Your task to perform on an android device: turn off notifications in google photos Image 0: 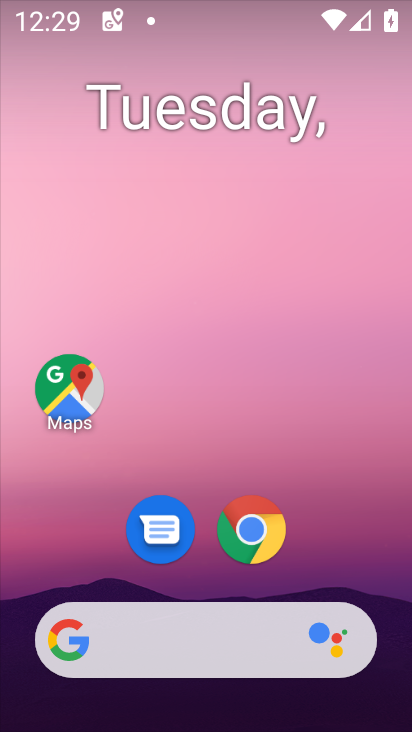
Step 0: drag from (218, 691) to (322, 8)
Your task to perform on an android device: turn off notifications in google photos Image 1: 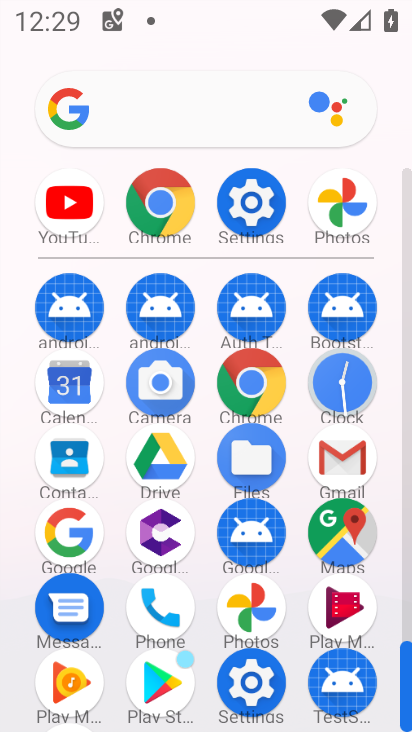
Step 1: click (246, 599)
Your task to perform on an android device: turn off notifications in google photos Image 2: 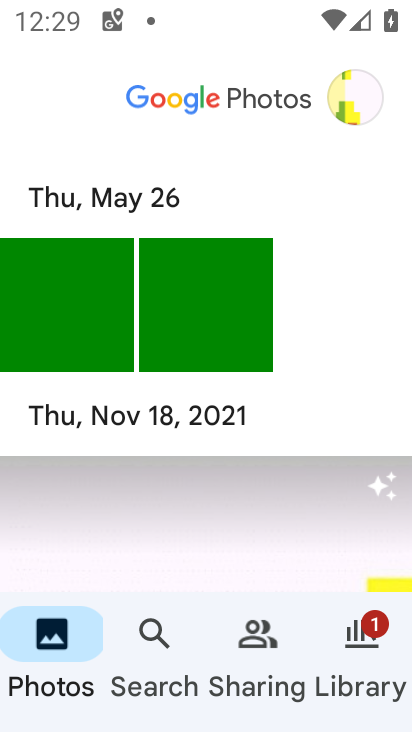
Step 2: click (373, 89)
Your task to perform on an android device: turn off notifications in google photos Image 3: 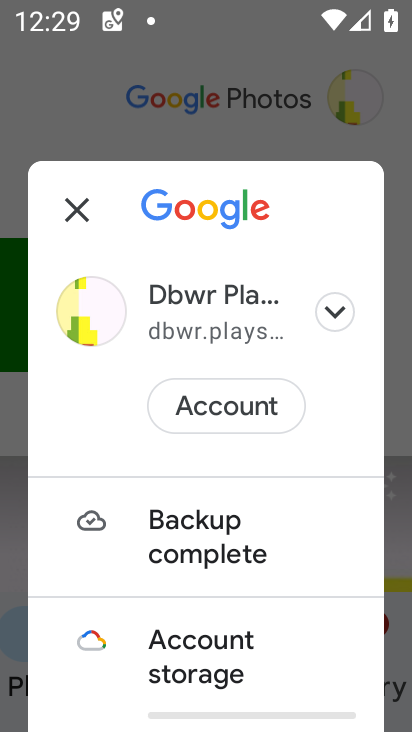
Step 3: drag from (229, 565) to (269, 97)
Your task to perform on an android device: turn off notifications in google photos Image 4: 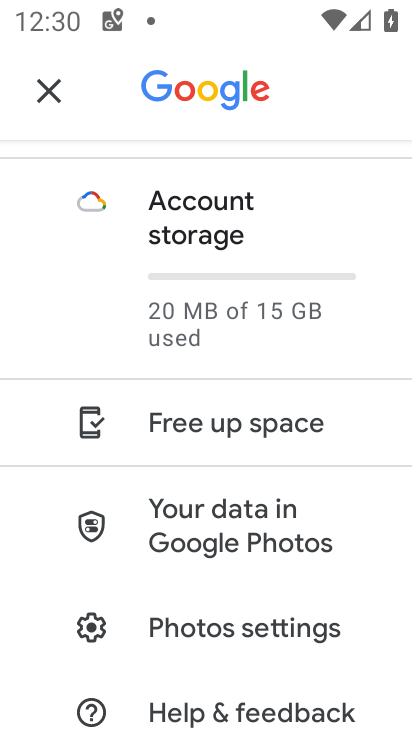
Step 4: click (214, 622)
Your task to perform on an android device: turn off notifications in google photos Image 5: 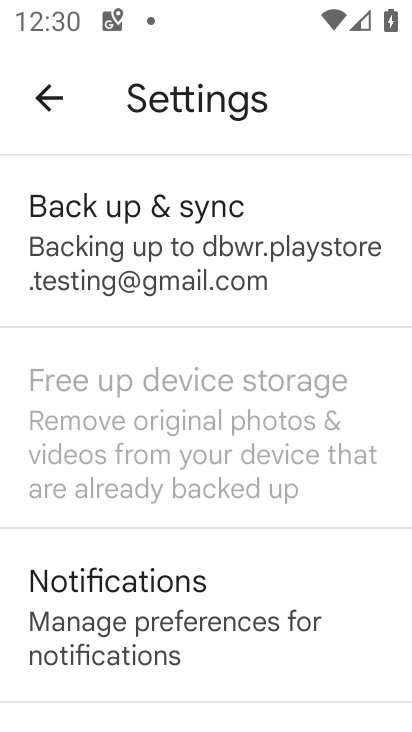
Step 5: click (176, 590)
Your task to perform on an android device: turn off notifications in google photos Image 6: 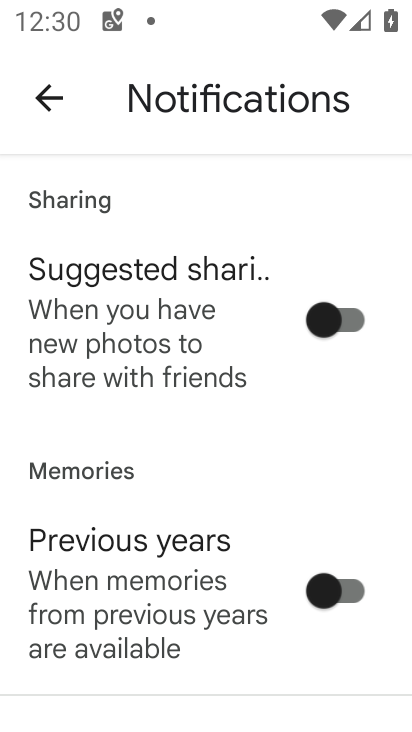
Step 6: drag from (260, 554) to (324, 149)
Your task to perform on an android device: turn off notifications in google photos Image 7: 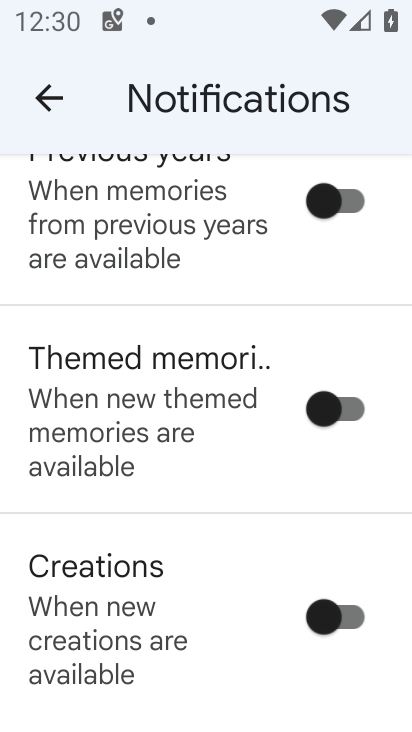
Step 7: drag from (215, 407) to (217, 357)
Your task to perform on an android device: turn off notifications in google photos Image 8: 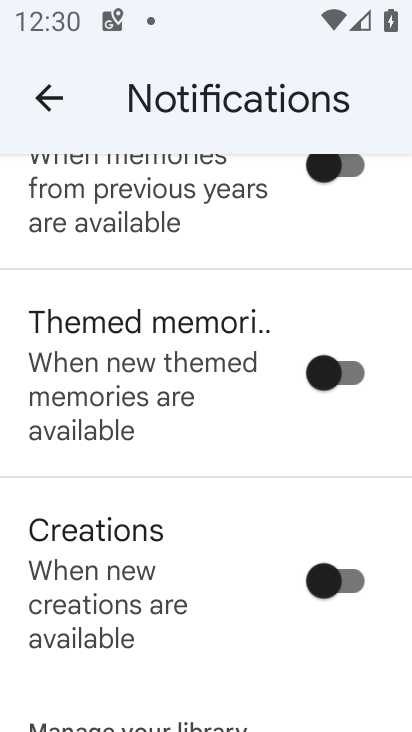
Step 8: drag from (112, 705) to (145, 480)
Your task to perform on an android device: turn off notifications in google photos Image 9: 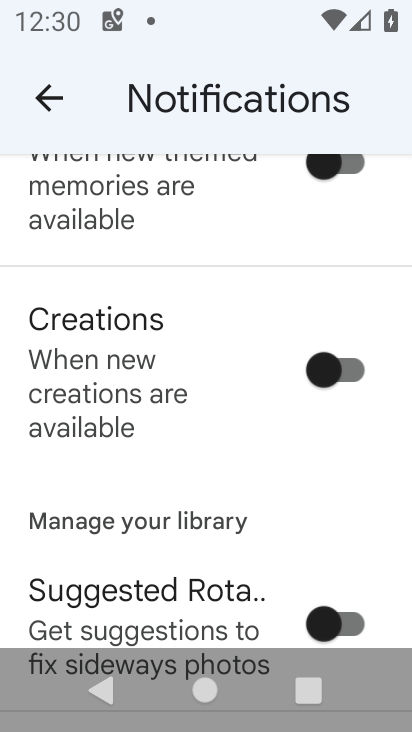
Step 9: drag from (124, 724) to (162, 438)
Your task to perform on an android device: turn off notifications in google photos Image 10: 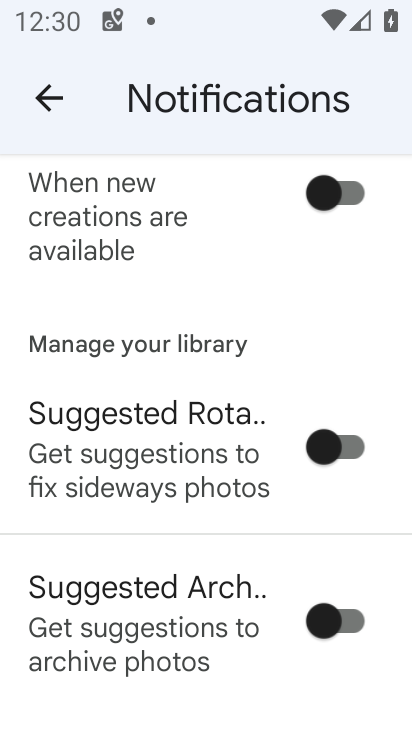
Step 10: drag from (162, 438) to (172, 331)
Your task to perform on an android device: turn off notifications in google photos Image 11: 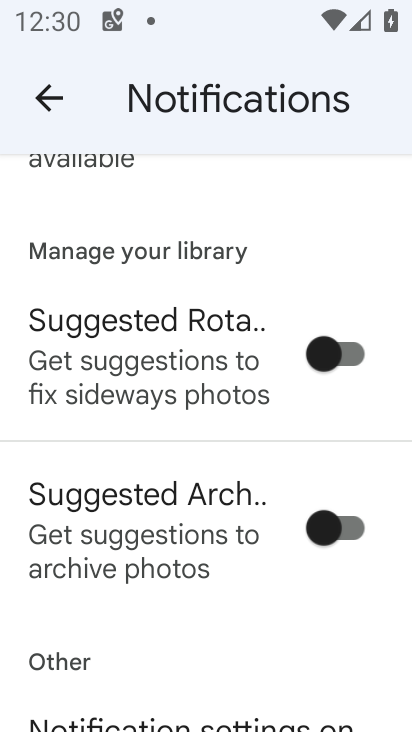
Step 11: drag from (161, 515) to (197, 162)
Your task to perform on an android device: turn off notifications in google photos Image 12: 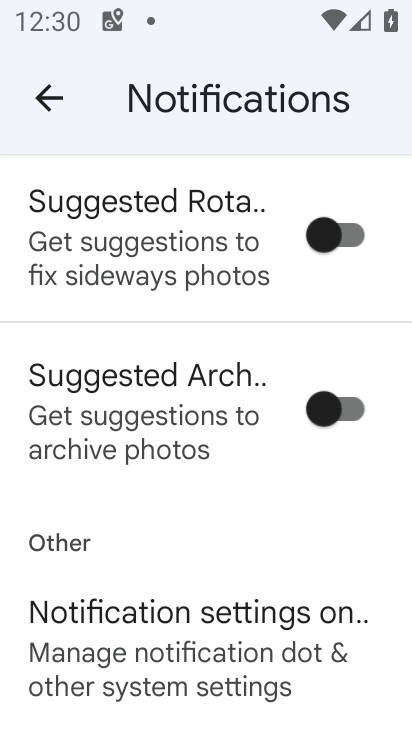
Step 12: click (329, 680)
Your task to perform on an android device: turn off notifications in google photos Image 13: 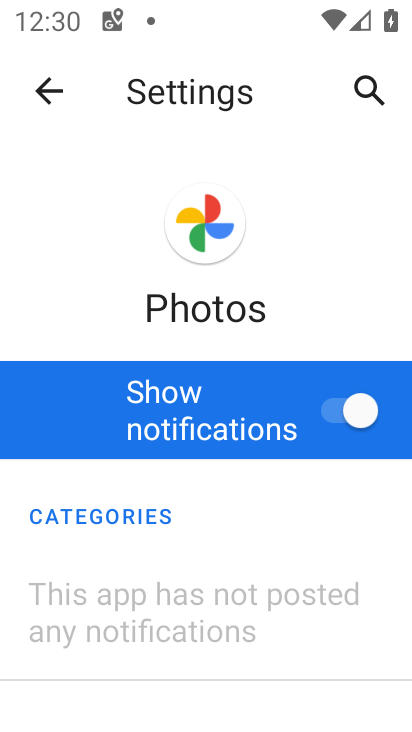
Step 13: click (337, 391)
Your task to perform on an android device: turn off notifications in google photos Image 14: 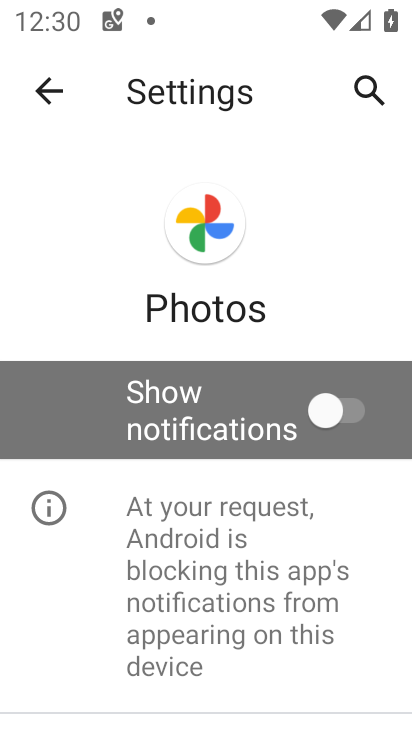
Step 14: task complete